Your task to perform on an android device: What's on my calendar tomorrow? Image 0: 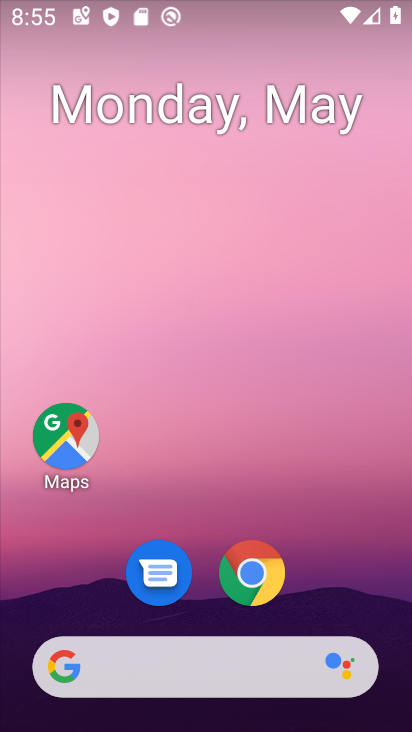
Step 0: drag from (379, 589) to (200, 21)
Your task to perform on an android device: What's on my calendar tomorrow? Image 1: 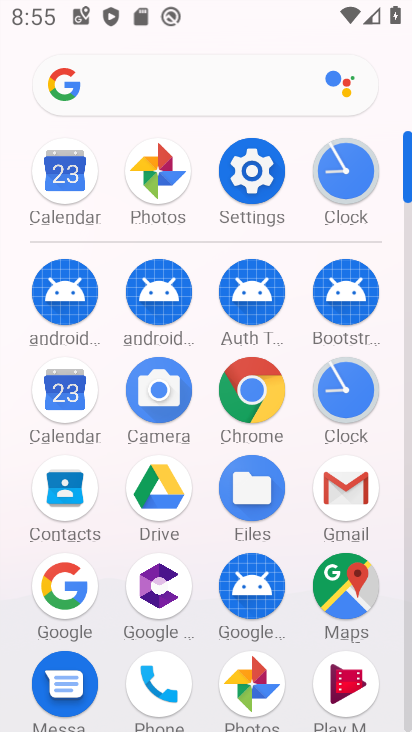
Step 1: click (65, 431)
Your task to perform on an android device: What's on my calendar tomorrow? Image 2: 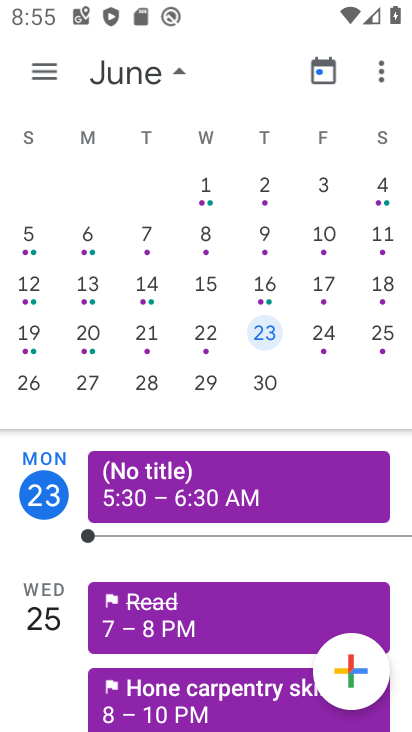
Step 2: task complete